Your task to perform on an android device: toggle show notifications on the lock screen Image 0: 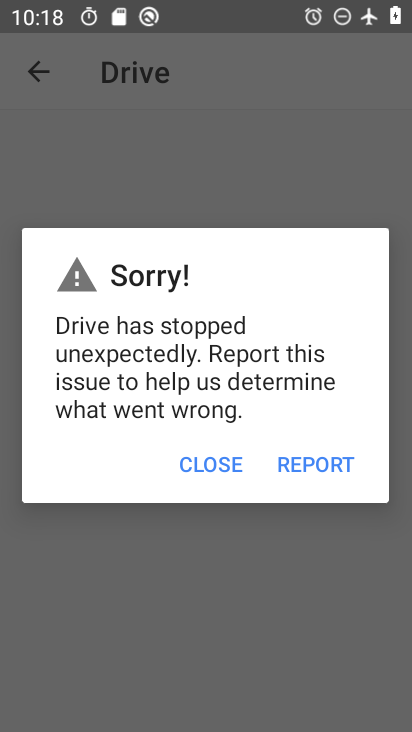
Step 0: press home button
Your task to perform on an android device: toggle show notifications on the lock screen Image 1: 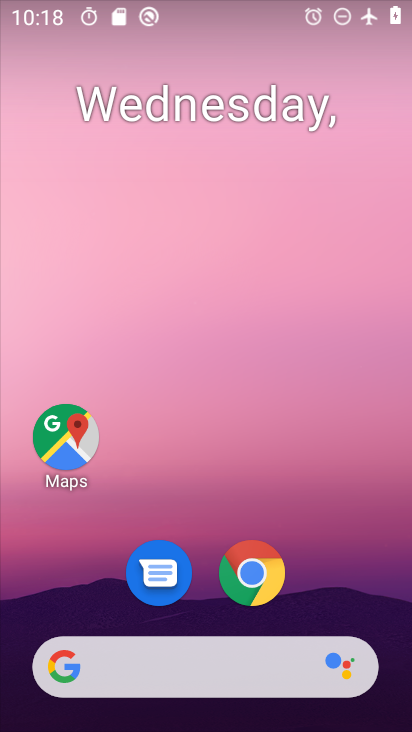
Step 1: drag from (312, 661) to (352, 176)
Your task to perform on an android device: toggle show notifications on the lock screen Image 2: 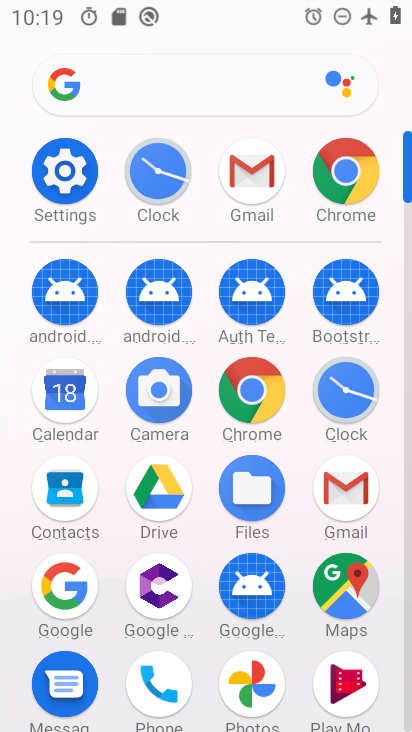
Step 2: drag from (289, 510) to (340, 267)
Your task to perform on an android device: toggle show notifications on the lock screen Image 3: 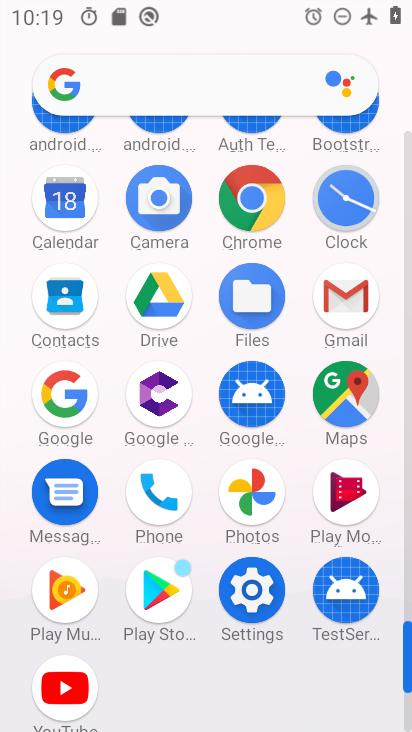
Step 3: click (268, 593)
Your task to perform on an android device: toggle show notifications on the lock screen Image 4: 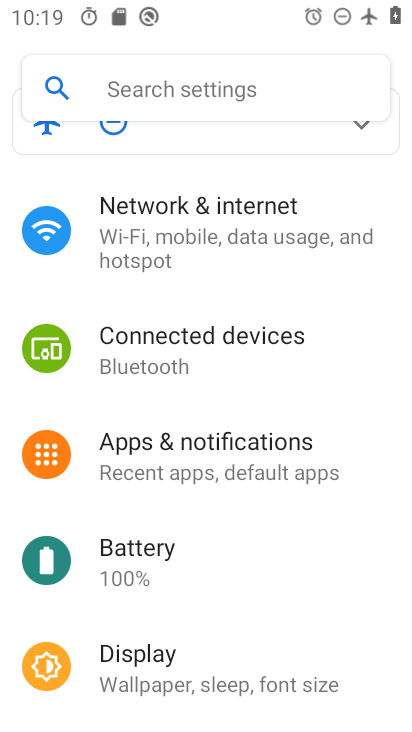
Step 4: drag from (255, 605) to (264, 436)
Your task to perform on an android device: toggle show notifications on the lock screen Image 5: 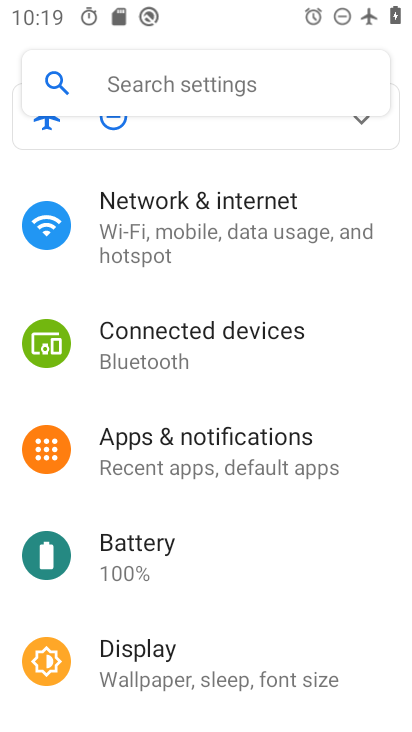
Step 5: click (260, 445)
Your task to perform on an android device: toggle show notifications on the lock screen Image 6: 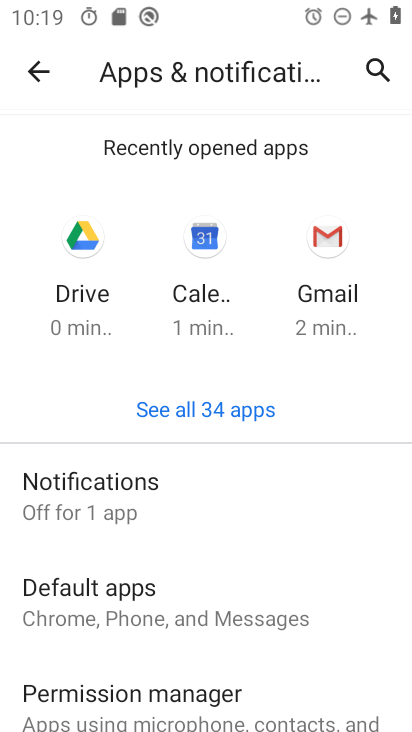
Step 6: click (196, 496)
Your task to perform on an android device: toggle show notifications on the lock screen Image 7: 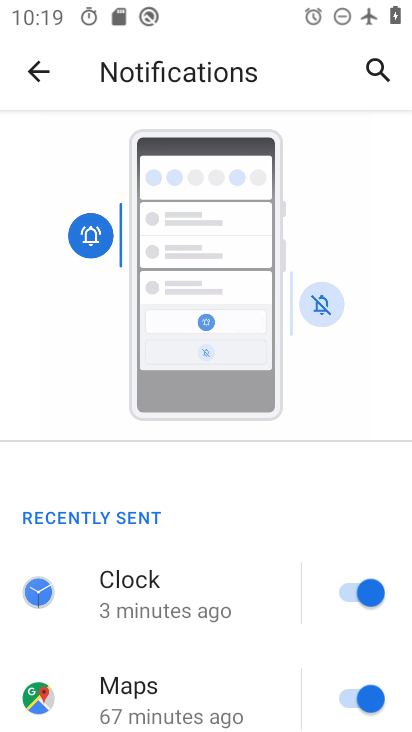
Step 7: drag from (197, 583) to (235, 481)
Your task to perform on an android device: toggle show notifications on the lock screen Image 8: 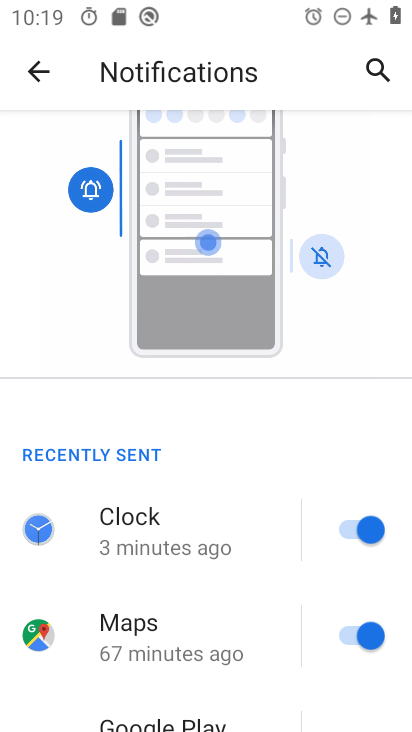
Step 8: drag from (208, 629) to (275, 292)
Your task to perform on an android device: toggle show notifications on the lock screen Image 9: 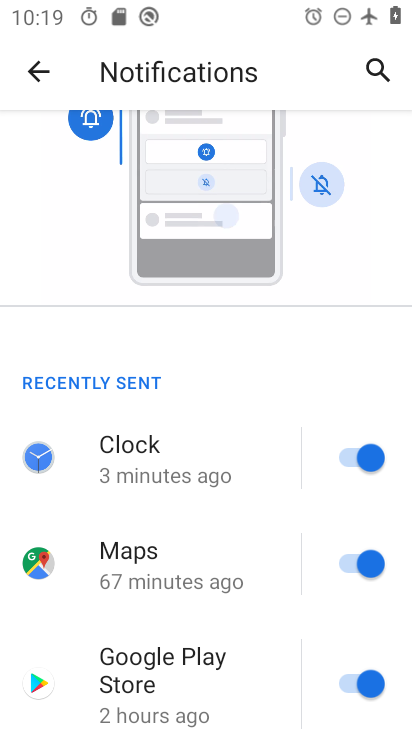
Step 9: drag from (210, 559) to (283, 365)
Your task to perform on an android device: toggle show notifications on the lock screen Image 10: 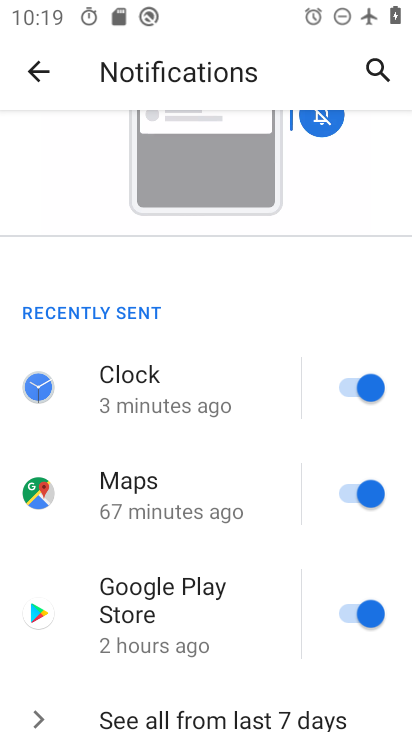
Step 10: drag from (231, 623) to (265, 427)
Your task to perform on an android device: toggle show notifications on the lock screen Image 11: 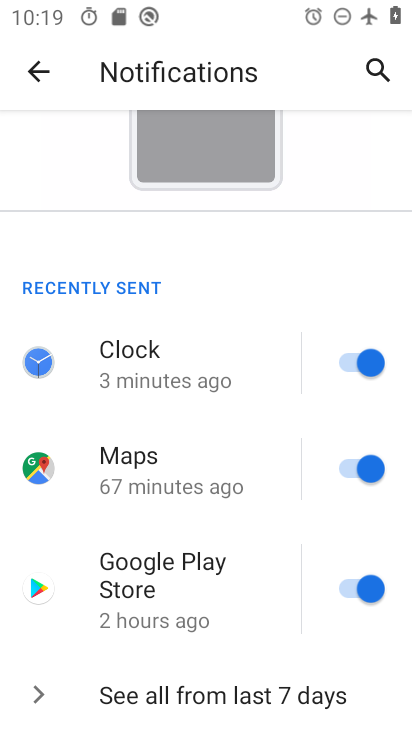
Step 11: drag from (205, 650) to (304, 278)
Your task to perform on an android device: toggle show notifications on the lock screen Image 12: 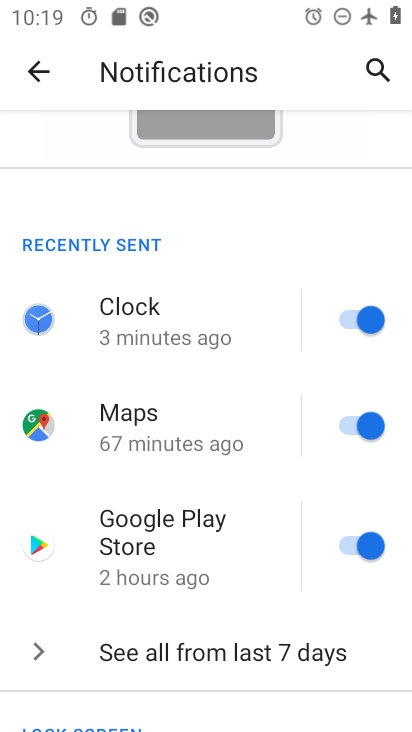
Step 12: drag from (263, 526) to (273, 455)
Your task to perform on an android device: toggle show notifications on the lock screen Image 13: 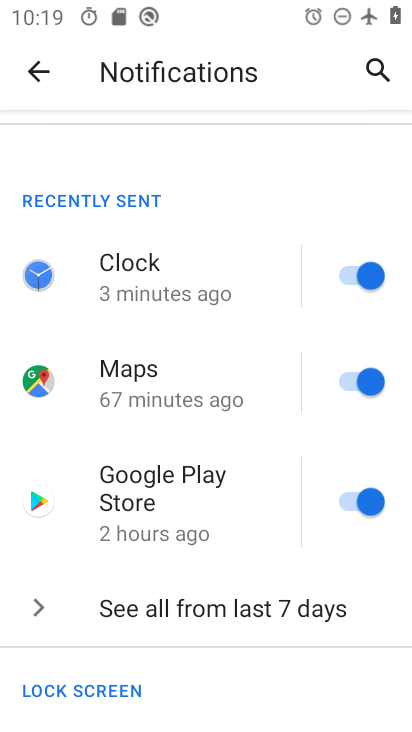
Step 13: drag from (227, 546) to (334, 123)
Your task to perform on an android device: toggle show notifications on the lock screen Image 14: 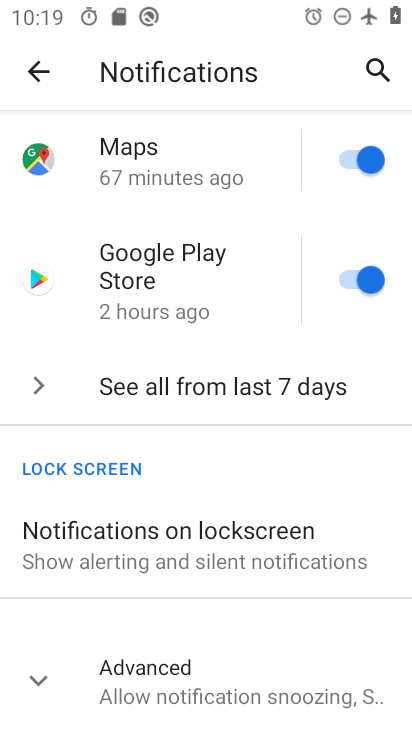
Step 14: click (244, 547)
Your task to perform on an android device: toggle show notifications on the lock screen Image 15: 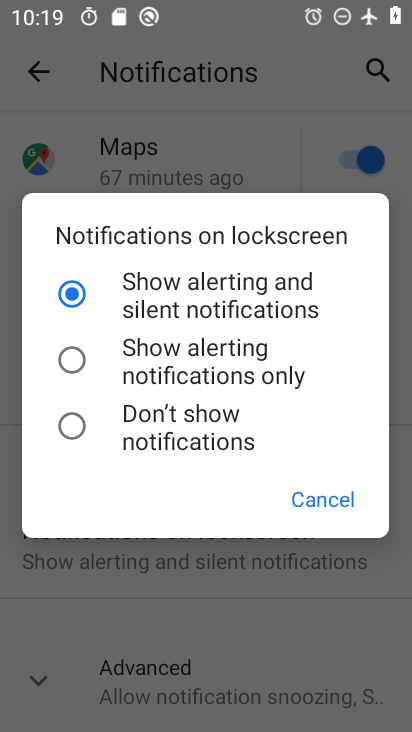
Step 15: click (188, 447)
Your task to perform on an android device: toggle show notifications on the lock screen Image 16: 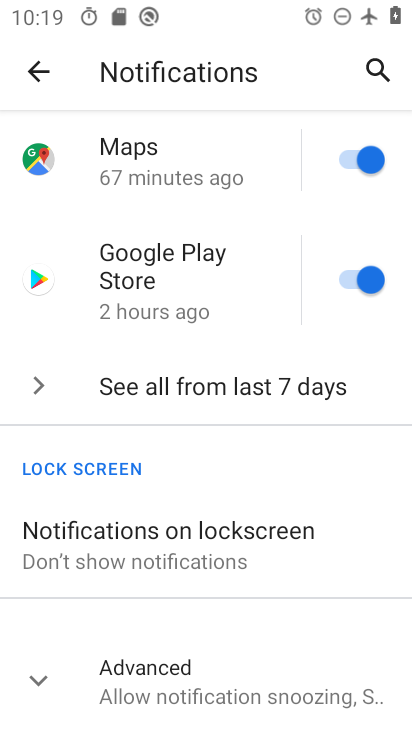
Step 16: task complete